Your task to perform on an android device: toggle airplane mode Image 0: 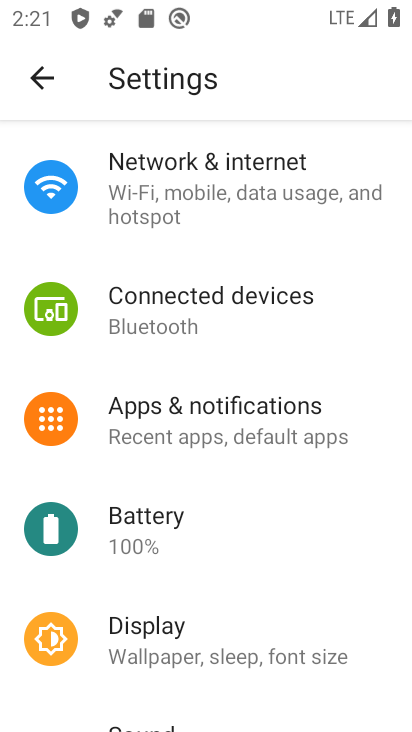
Step 0: click (165, 192)
Your task to perform on an android device: toggle airplane mode Image 1: 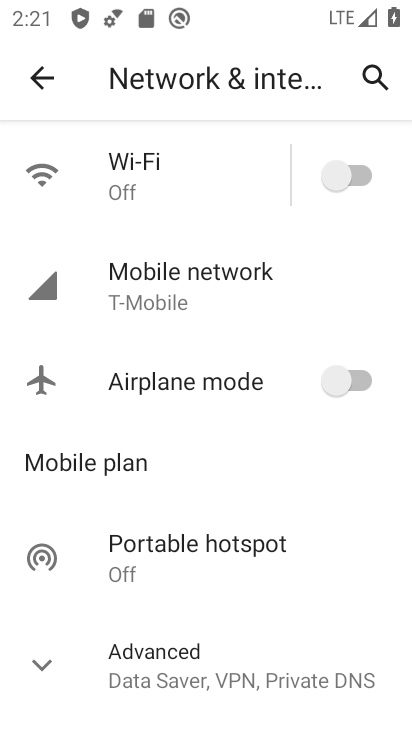
Step 1: click (329, 381)
Your task to perform on an android device: toggle airplane mode Image 2: 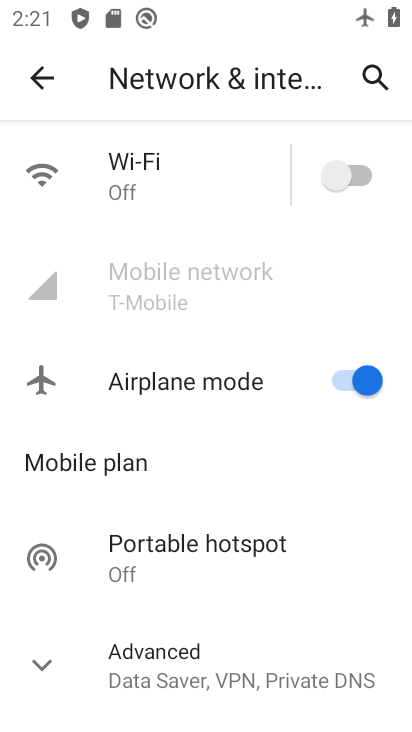
Step 2: task complete